Your task to perform on an android device: Open the phone app and click the voicemail tab. Image 0: 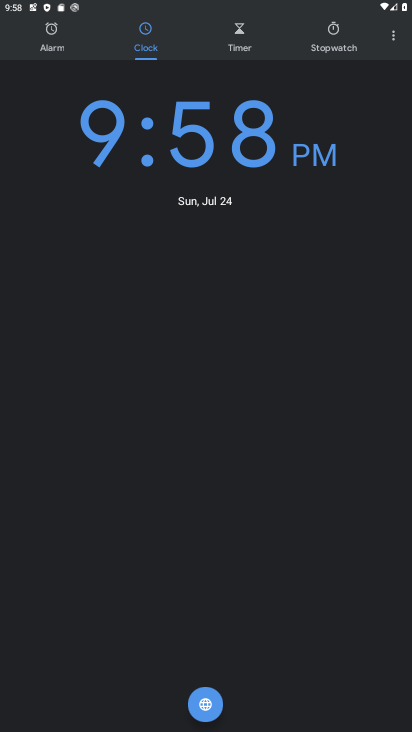
Step 0: click (397, 390)
Your task to perform on an android device: Open the phone app and click the voicemail tab. Image 1: 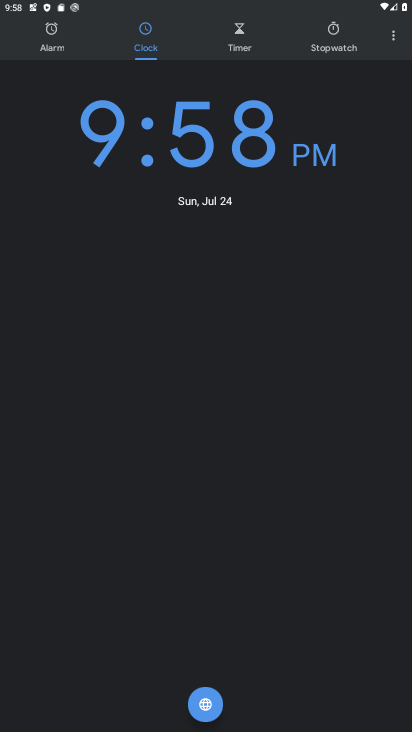
Step 1: press home button
Your task to perform on an android device: Open the phone app and click the voicemail tab. Image 2: 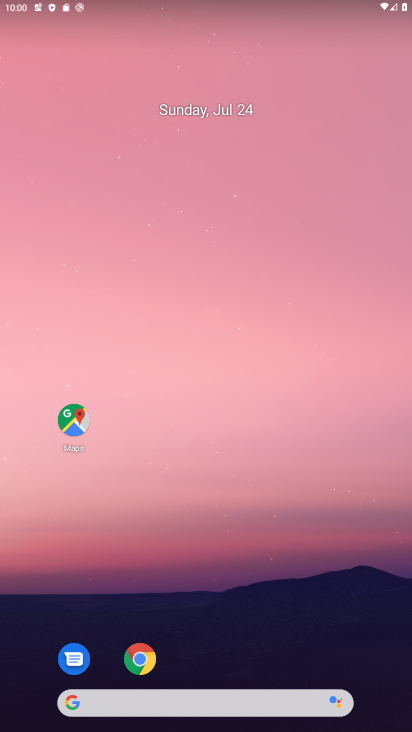
Step 2: drag from (381, 647) to (310, 15)
Your task to perform on an android device: Open the phone app and click the voicemail tab. Image 3: 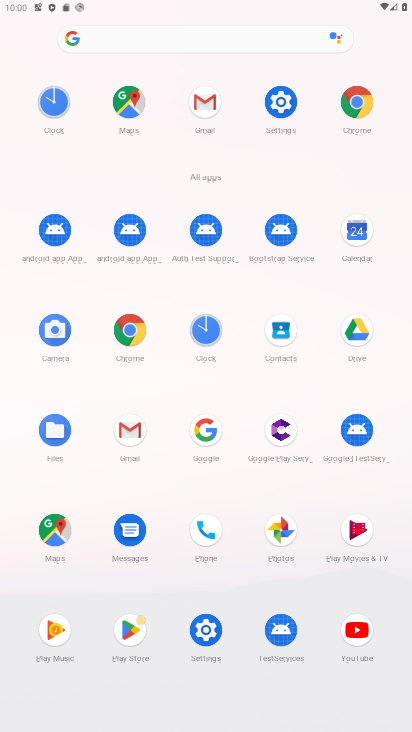
Step 3: click (201, 534)
Your task to perform on an android device: Open the phone app and click the voicemail tab. Image 4: 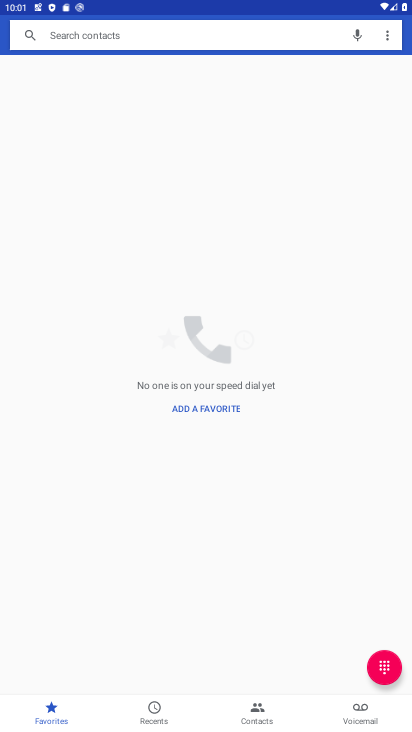
Step 4: click (356, 712)
Your task to perform on an android device: Open the phone app and click the voicemail tab. Image 5: 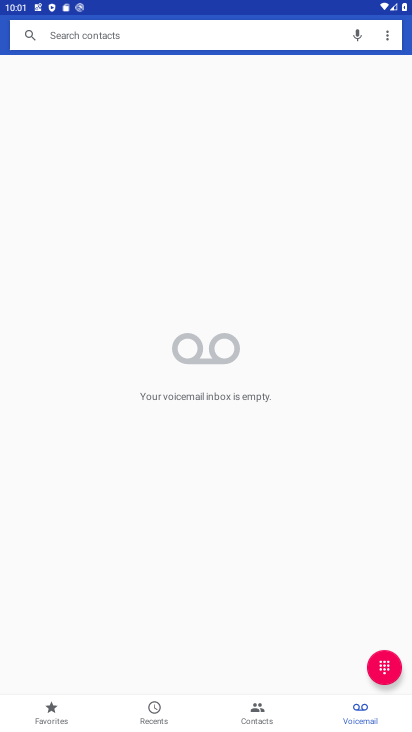
Step 5: task complete